Your task to perform on an android device: Add razer kraken to the cart on newegg.com, then select checkout. Image 0: 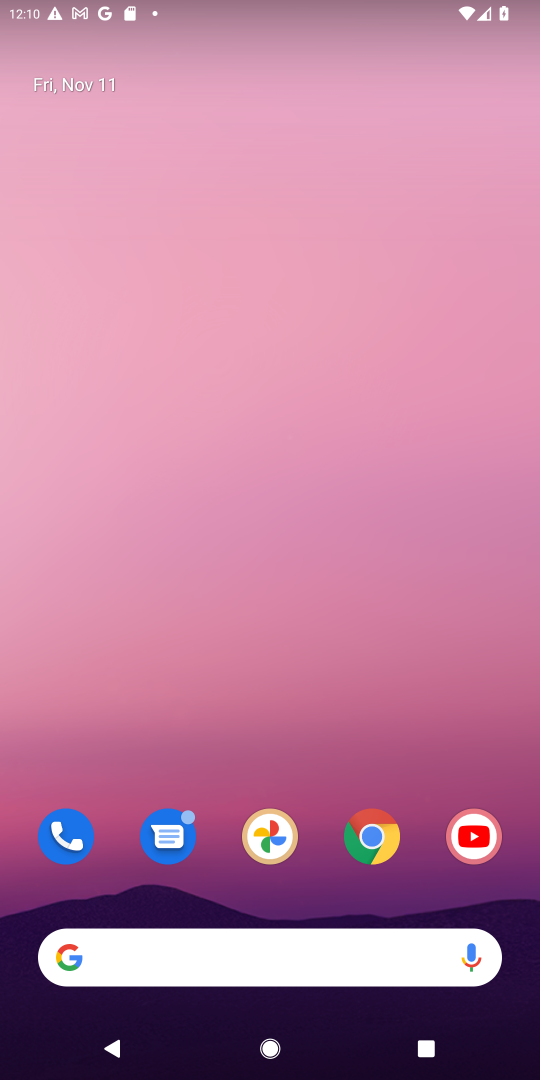
Step 0: click (249, 953)
Your task to perform on an android device: Add razer kraken to the cart on newegg.com, then select checkout. Image 1: 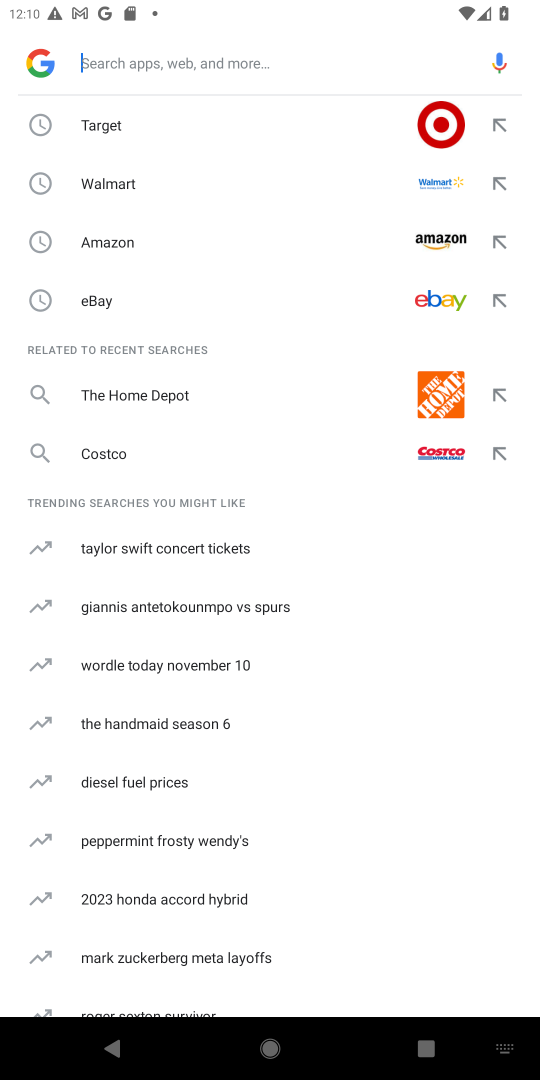
Step 1: type "target.com."
Your task to perform on an android device: Add razer kraken to the cart on newegg.com, then select checkout. Image 2: 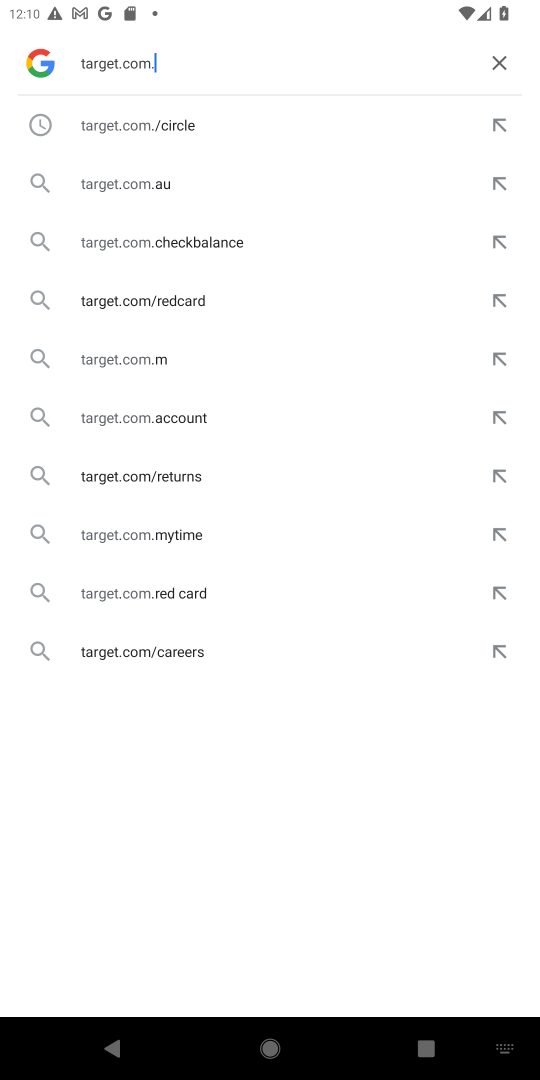
Step 2: click (125, 358)
Your task to perform on an android device: Add razer kraken to the cart on newegg.com, then select checkout. Image 3: 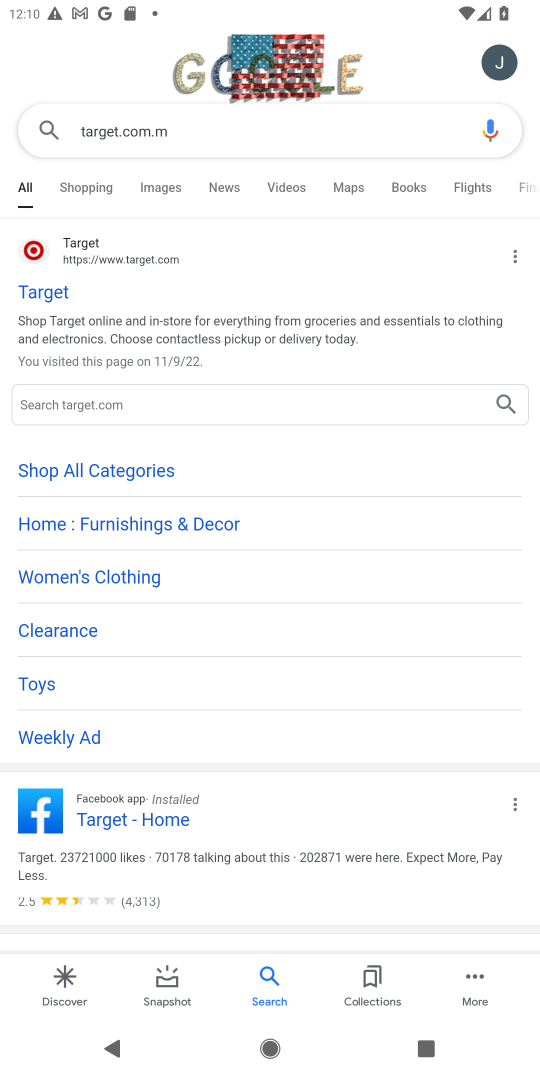
Step 3: click (46, 290)
Your task to perform on an android device: Add razer kraken to the cart on newegg.com, then select checkout. Image 4: 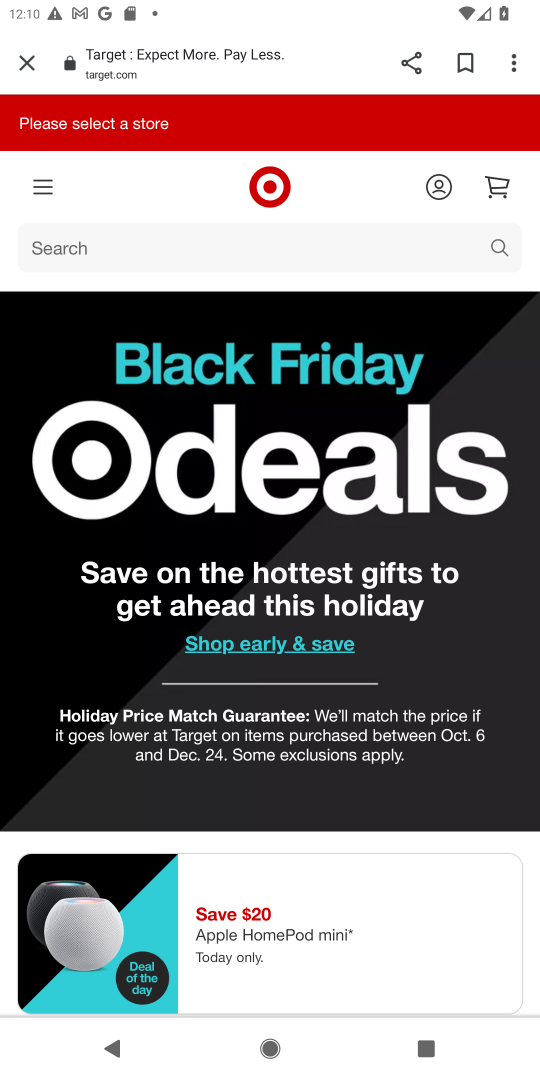
Step 4: click (241, 249)
Your task to perform on an android device: Add razer kraken to the cart on newegg.com, then select checkout. Image 5: 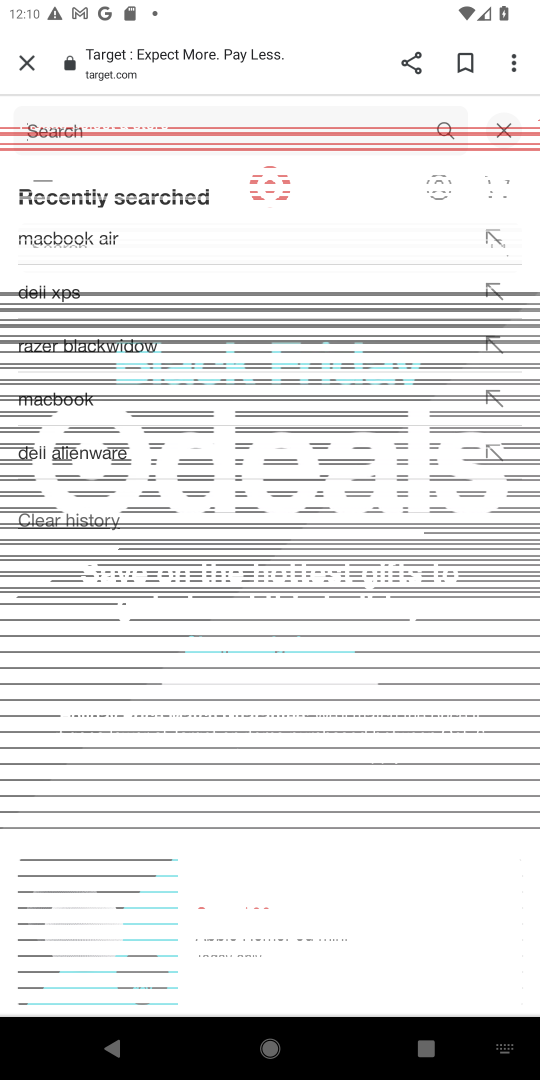
Step 5: click (427, 249)
Your task to perform on an android device: Add razer kraken to the cart on newegg.com, then select checkout. Image 6: 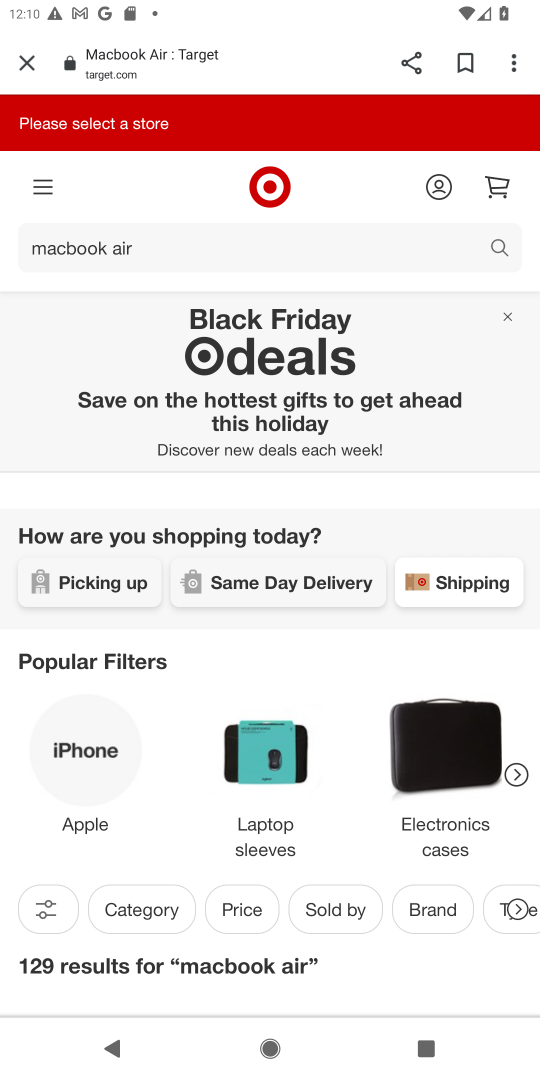
Step 6: click (329, 246)
Your task to perform on an android device: Add razer kraken to the cart on newegg.com, then select checkout. Image 7: 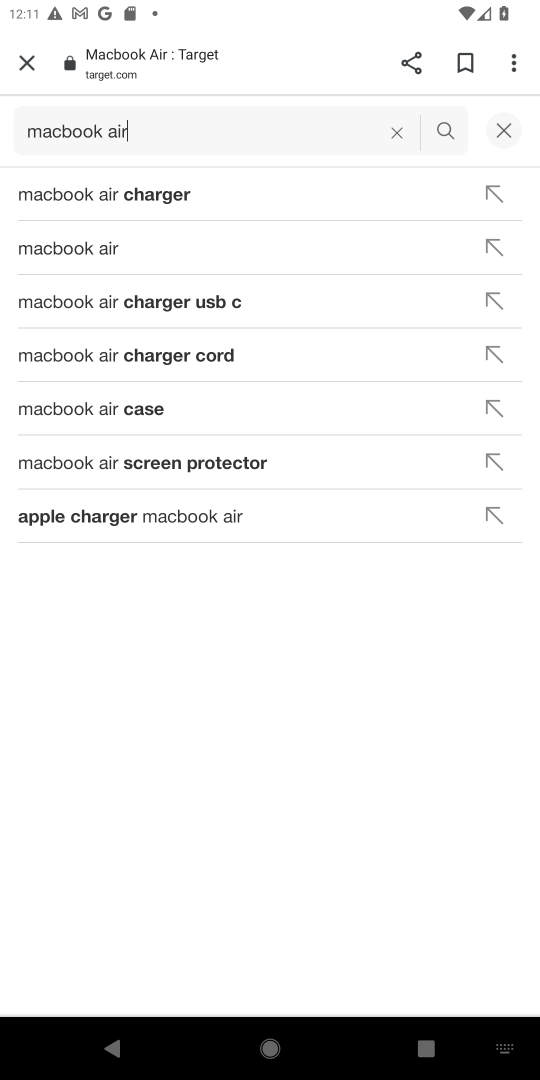
Step 7: click (317, 241)
Your task to perform on an android device: Add razer kraken to the cart on newegg.com, then select checkout. Image 8: 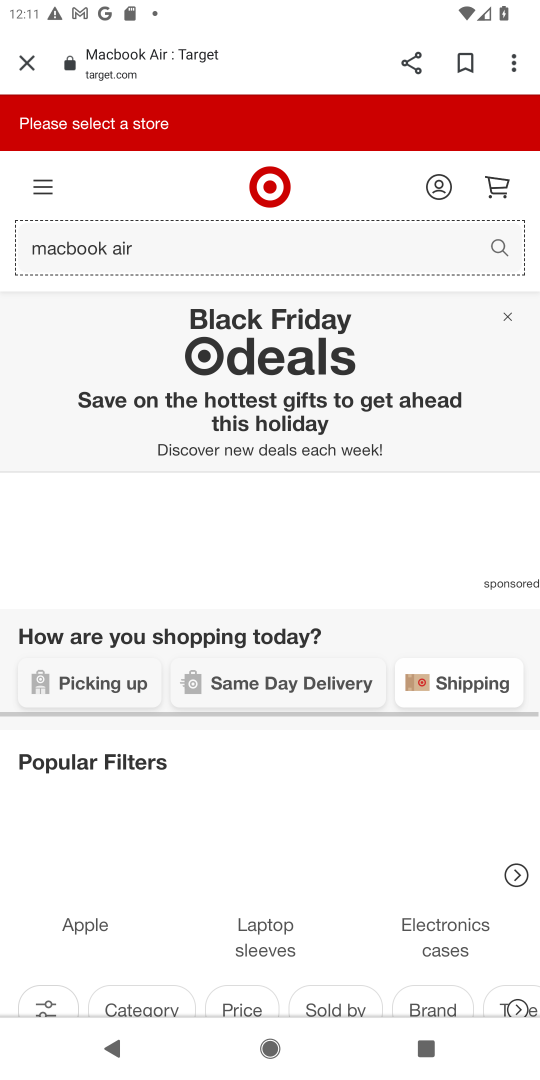
Step 8: click (494, 249)
Your task to perform on an android device: Add razer kraken to the cart on newegg.com, then select checkout. Image 9: 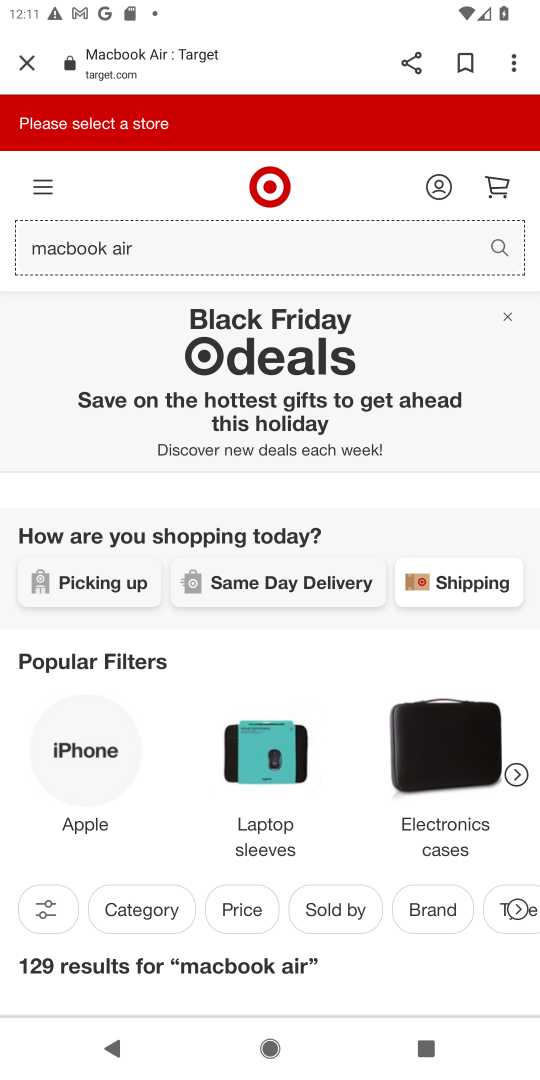
Step 9: click (507, 120)
Your task to perform on an android device: Add razer kraken to the cart on newegg.com, then select checkout. Image 10: 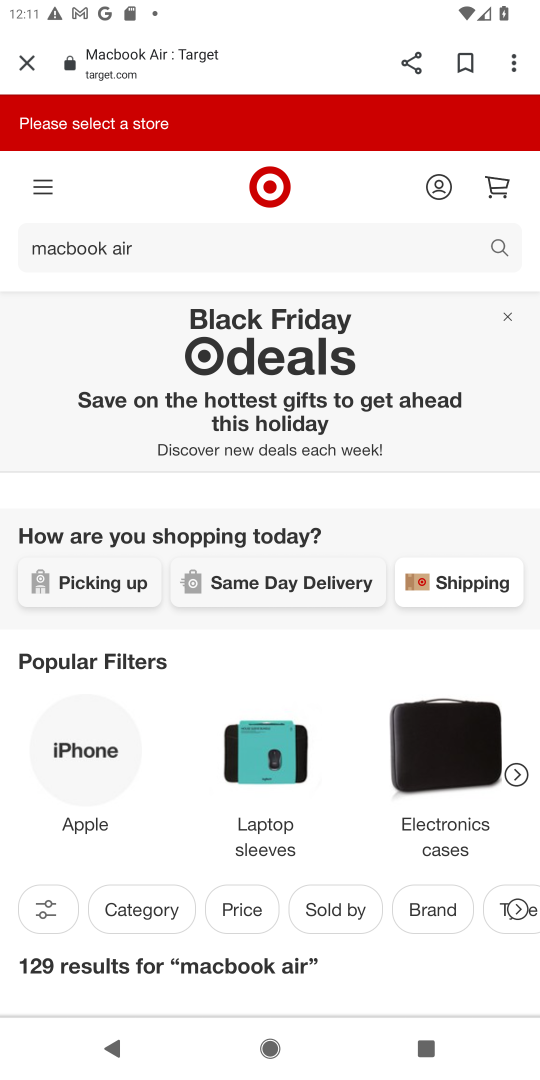
Step 10: click (163, 242)
Your task to perform on an android device: Add razer kraken to the cart on newegg.com, then select checkout. Image 11: 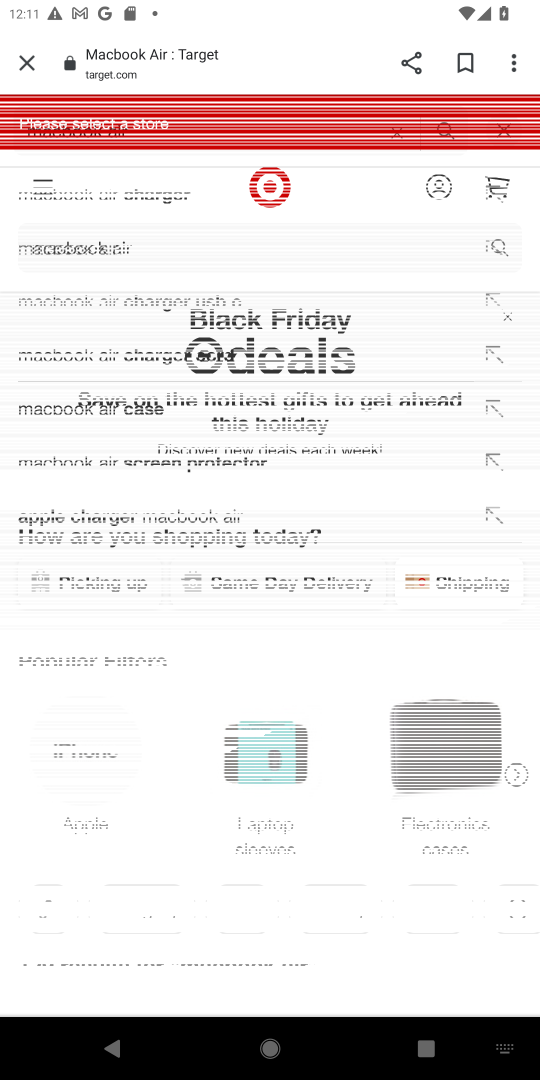
Step 11: click (199, 250)
Your task to perform on an android device: Add razer kraken to the cart on newegg.com, then select checkout. Image 12: 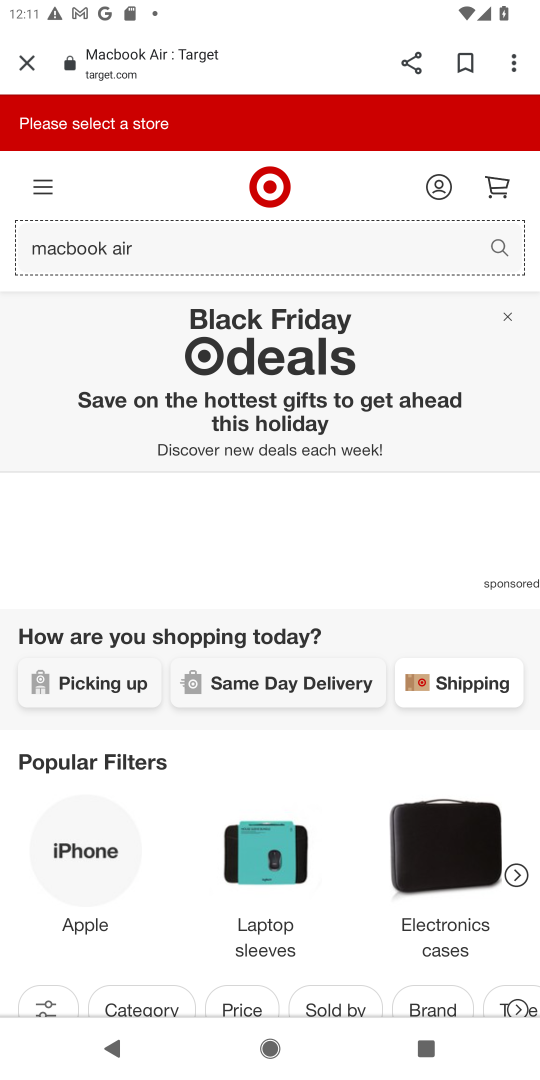
Step 12: click (318, 249)
Your task to perform on an android device: Add razer kraken to the cart on newegg.com, then select checkout. Image 13: 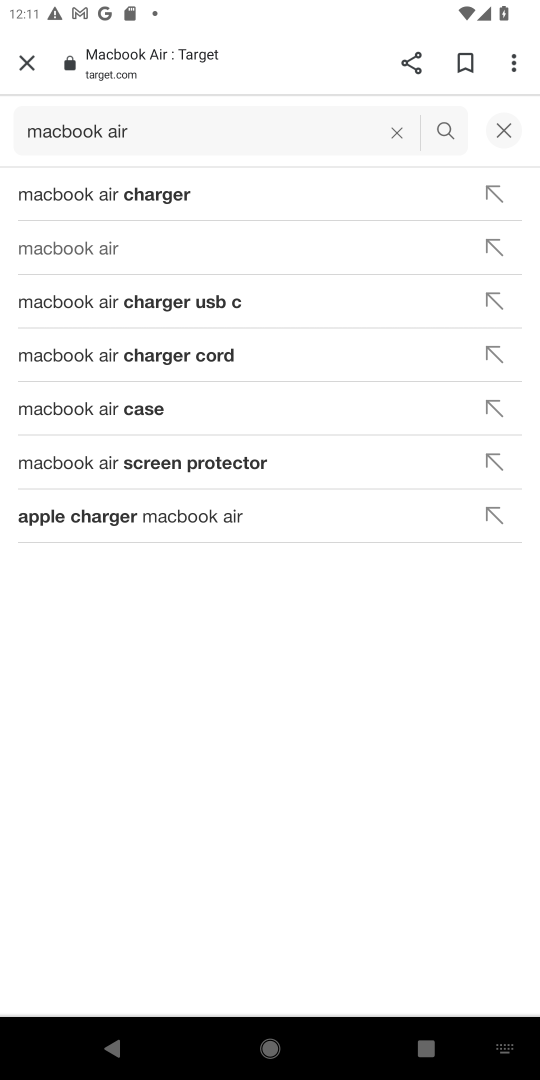
Step 13: click (393, 123)
Your task to perform on an android device: Add razer kraken to the cart on newegg.com, then select checkout. Image 14: 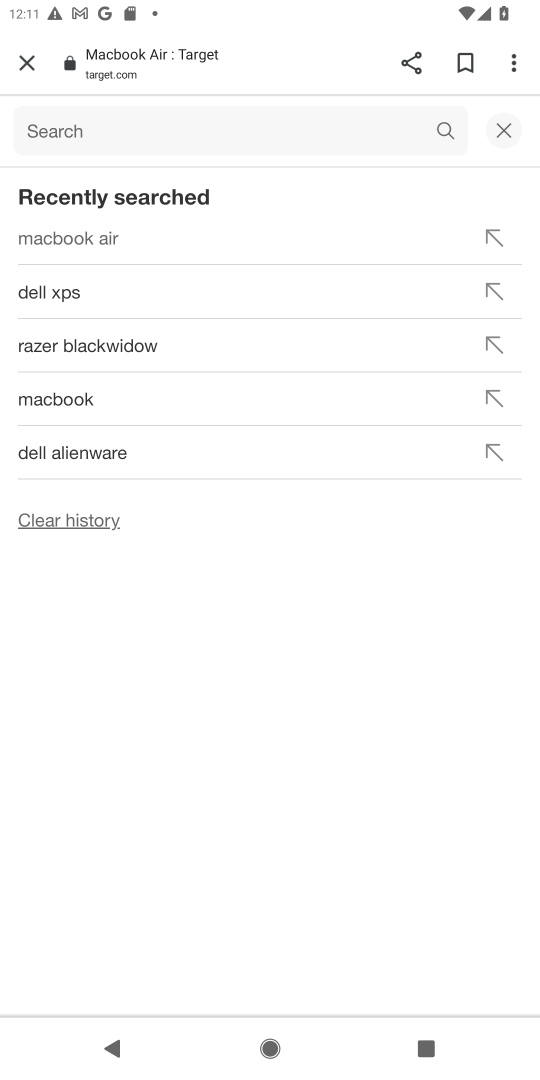
Step 14: click (139, 134)
Your task to perform on an android device: Add razer kraken to the cart on newegg.com, then select checkout. Image 15: 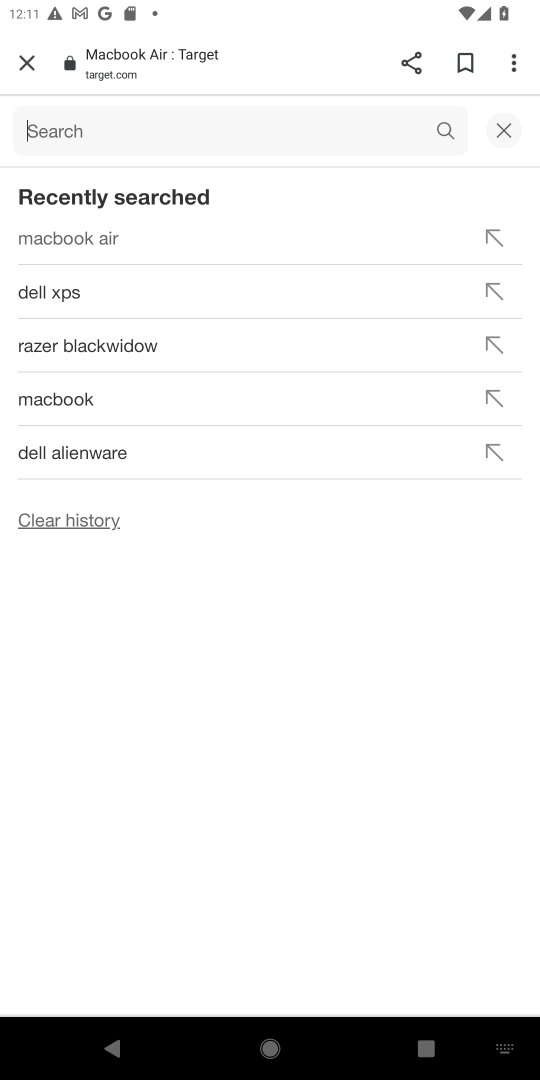
Step 15: type "razer kraken"
Your task to perform on an android device: Add razer kraken to the cart on newegg.com, then select checkout. Image 16: 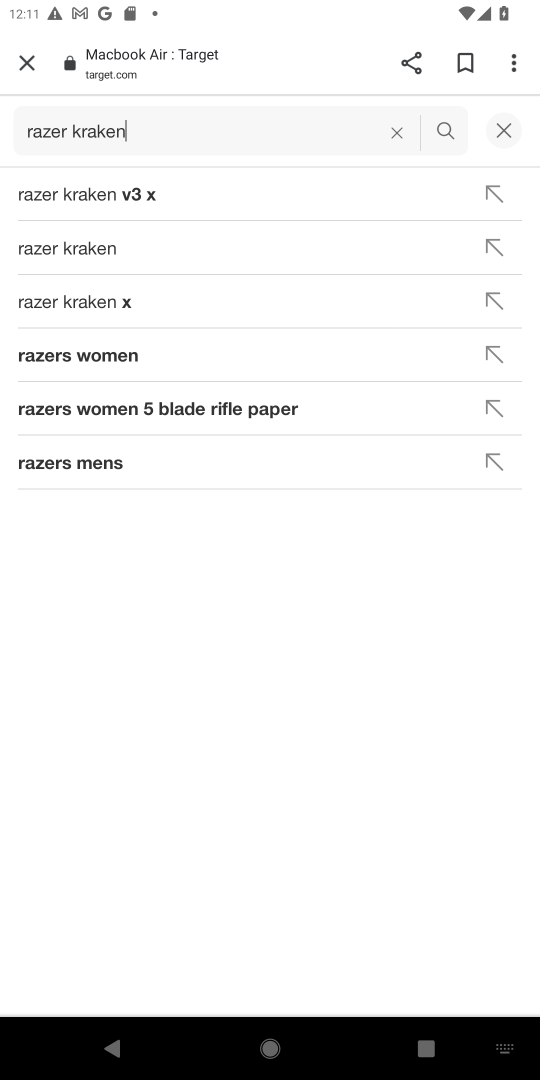
Step 16: click (80, 248)
Your task to perform on an android device: Add razer kraken to the cart on newegg.com, then select checkout. Image 17: 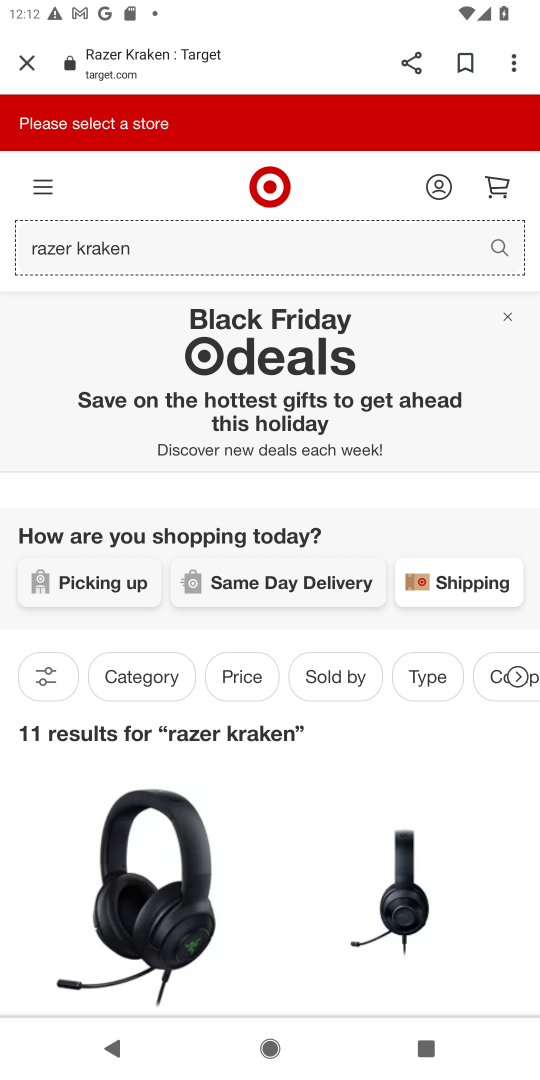
Step 17: drag from (155, 782) to (212, 504)
Your task to perform on an android device: Add razer kraken to the cart on newegg.com, then select checkout. Image 18: 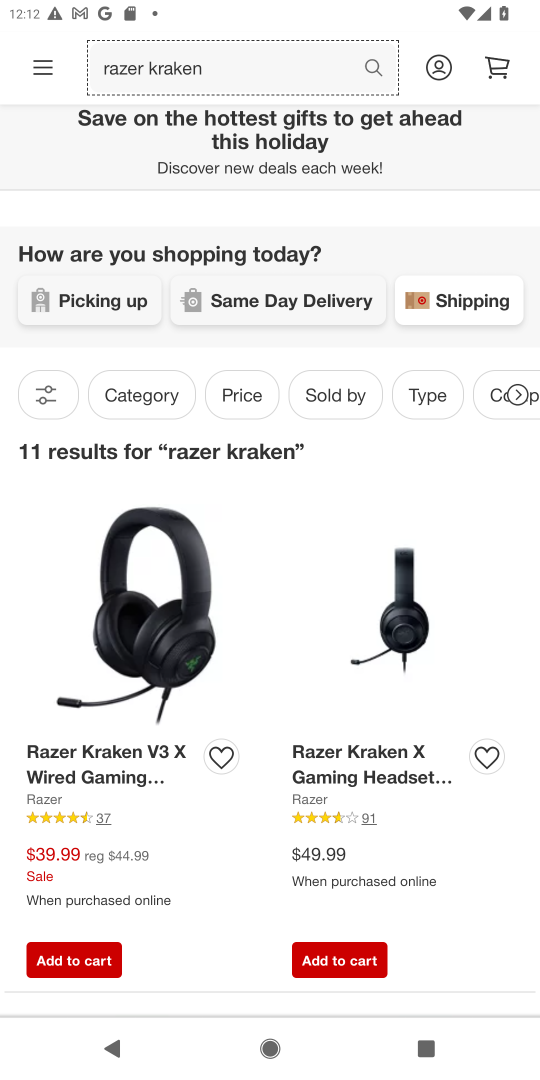
Step 18: click (58, 952)
Your task to perform on an android device: Add razer kraken to the cart on newegg.com, then select checkout. Image 19: 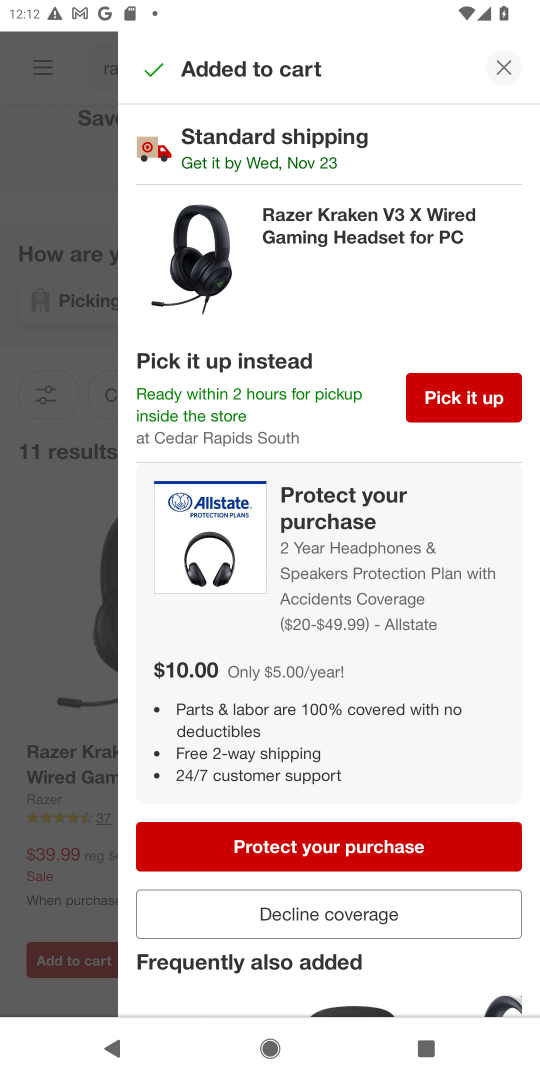
Step 19: click (318, 918)
Your task to perform on an android device: Add razer kraken to the cart on newegg.com, then select checkout. Image 20: 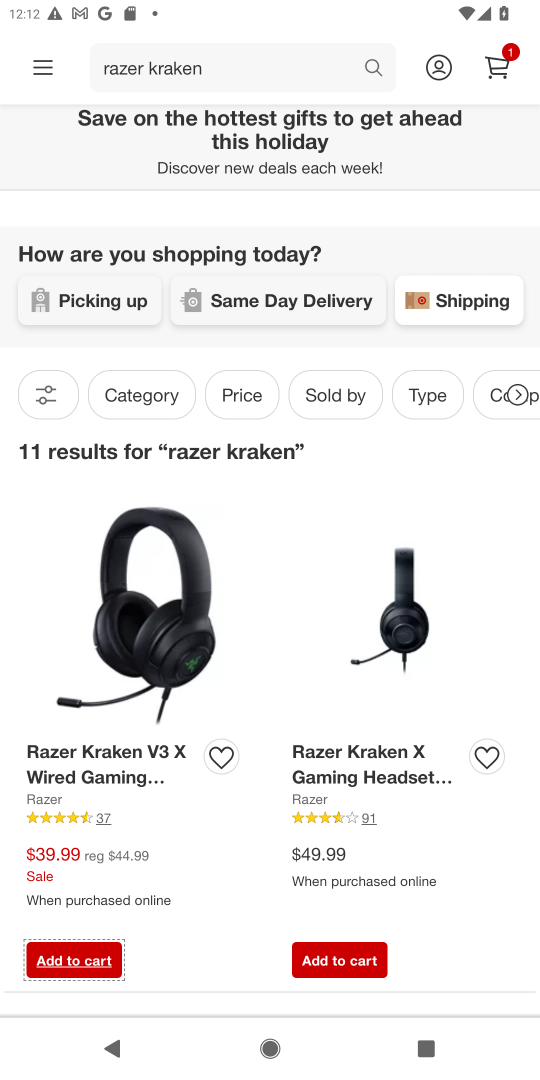
Step 20: task complete